Your task to perform on an android device: Open the web browser Image 0: 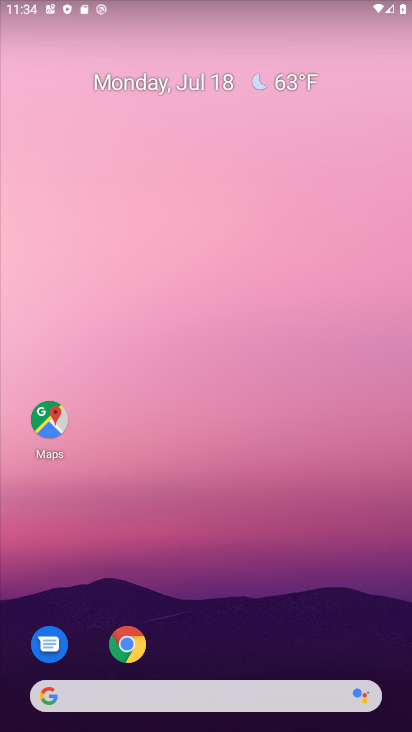
Step 0: click (128, 649)
Your task to perform on an android device: Open the web browser Image 1: 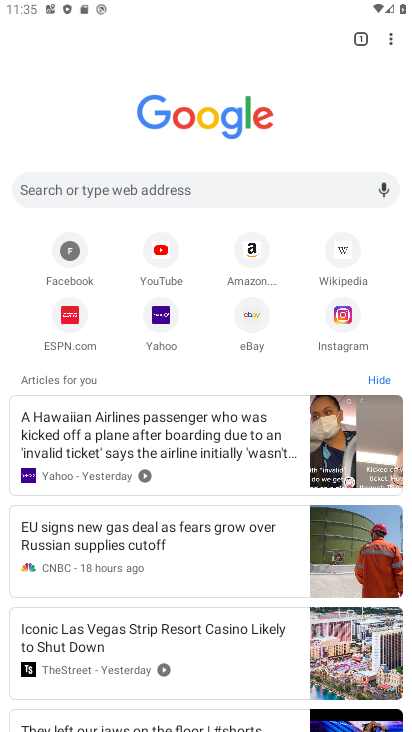
Step 1: task complete